Your task to perform on an android device: Do I have any events tomorrow? Image 0: 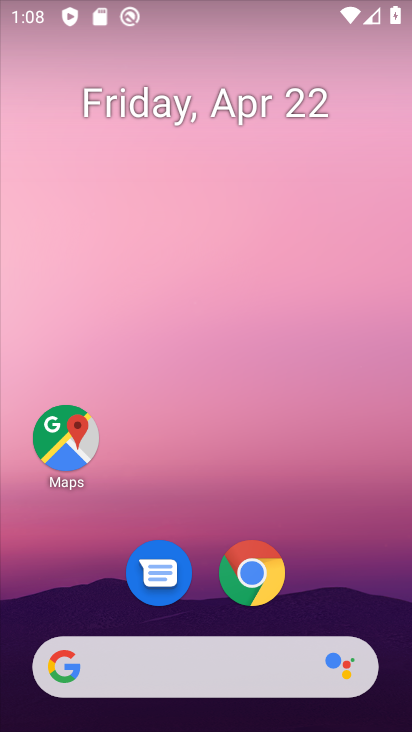
Step 0: drag from (265, 510) to (309, 116)
Your task to perform on an android device: Do I have any events tomorrow? Image 1: 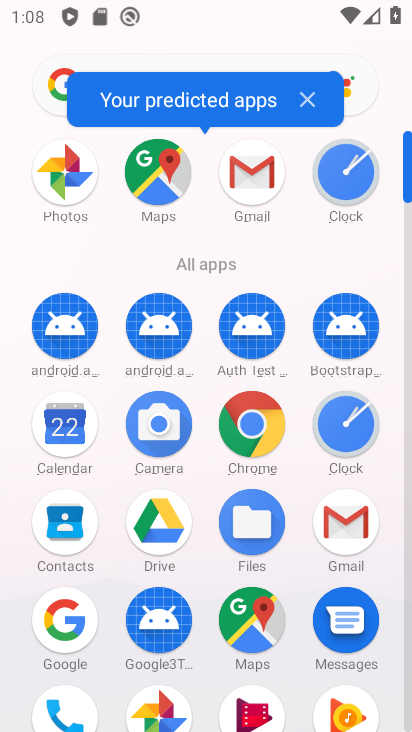
Step 1: click (65, 446)
Your task to perform on an android device: Do I have any events tomorrow? Image 2: 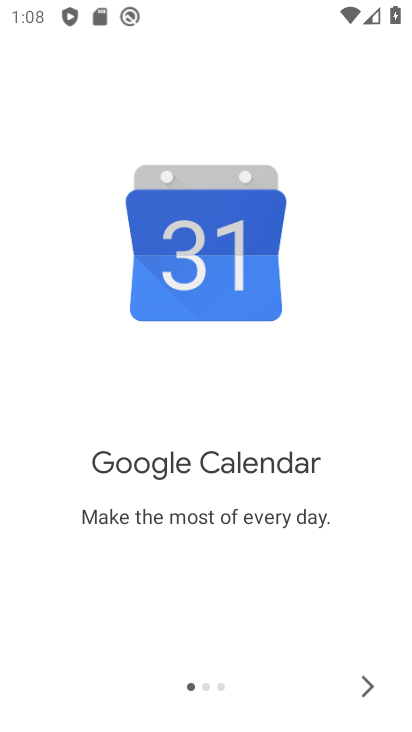
Step 2: click (368, 679)
Your task to perform on an android device: Do I have any events tomorrow? Image 3: 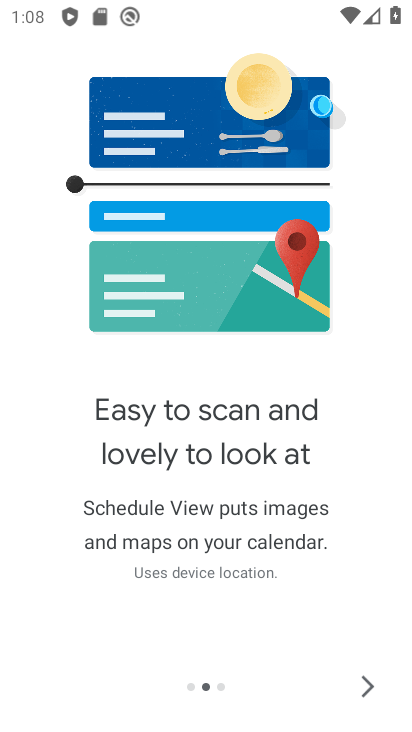
Step 3: click (369, 679)
Your task to perform on an android device: Do I have any events tomorrow? Image 4: 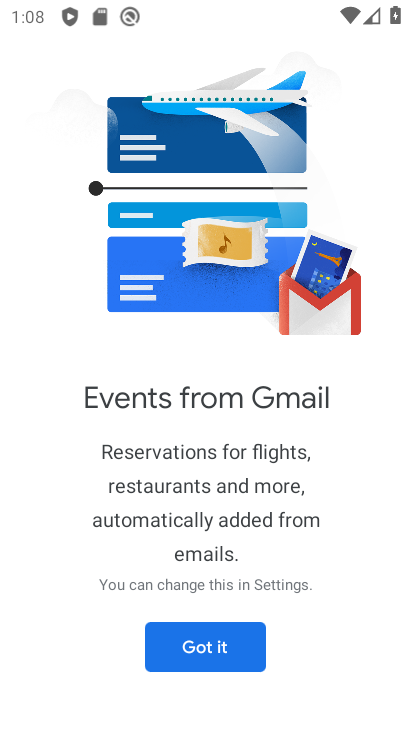
Step 4: click (246, 646)
Your task to perform on an android device: Do I have any events tomorrow? Image 5: 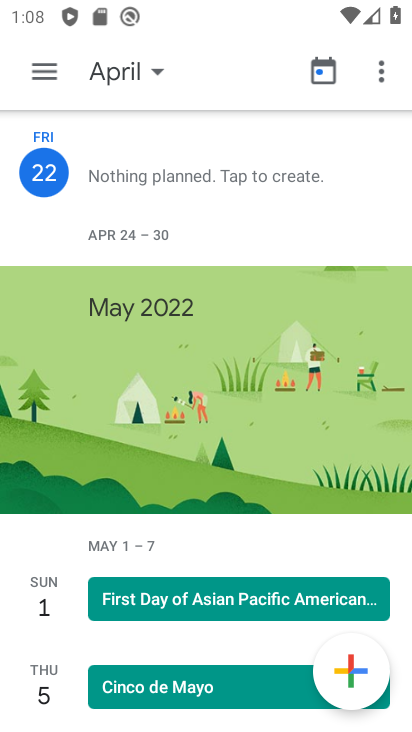
Step 5: click (40, 71)
Your task to perform on an android device: Do I have any events tomorrow? Image 6: 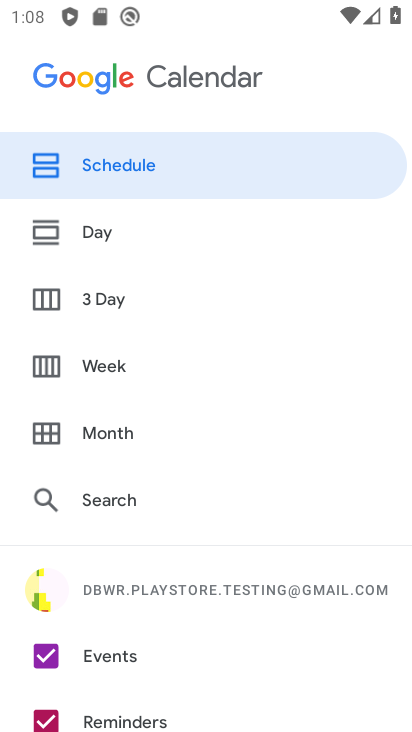
Step 6: click (109, 228)
Your task to perform on an android device: Do I have any events tomorrow? Image 7: 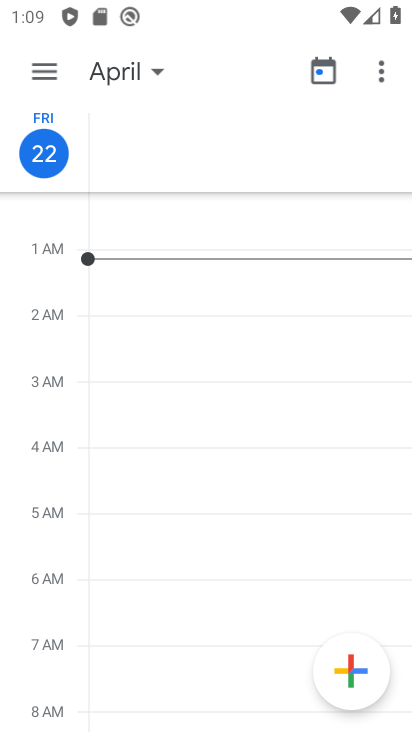
Step 7: task complete